Your task to perform on an android device: toggle javascript in the chrome app Image 0: 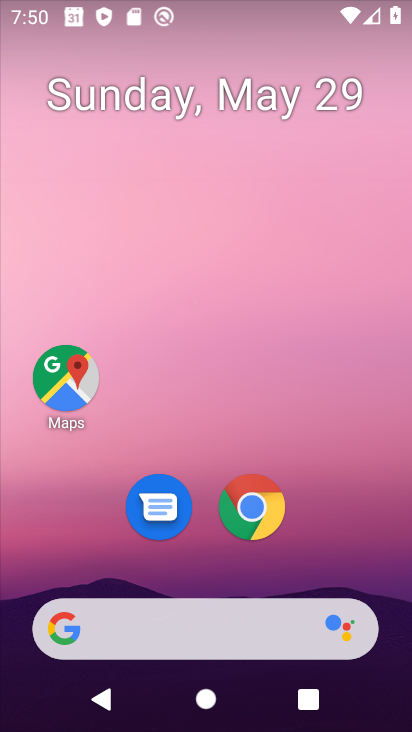
Step 0: click (250, 507)
Your task to perform on an android device: toggle javascript in the chrome app Image 1: 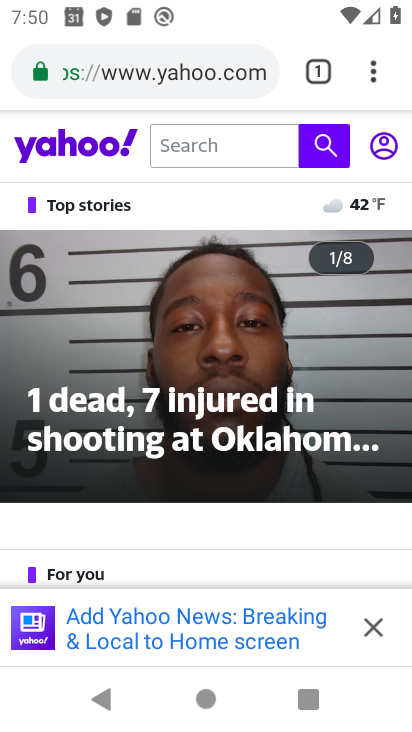
Step 1: drag from (370, 68) to (238, 571)
Your task to perform on an android device: toggle javascript in the chrome app Image 2: 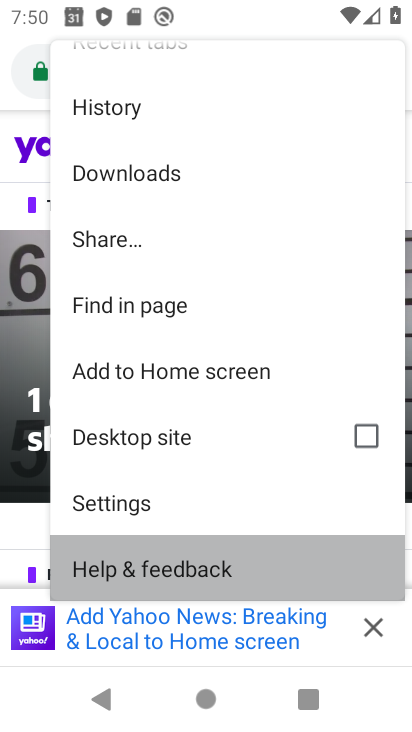
Step 2: click (239, 530)
Your task to perform on an android device: toggle javascript in the chrome app Image 3: 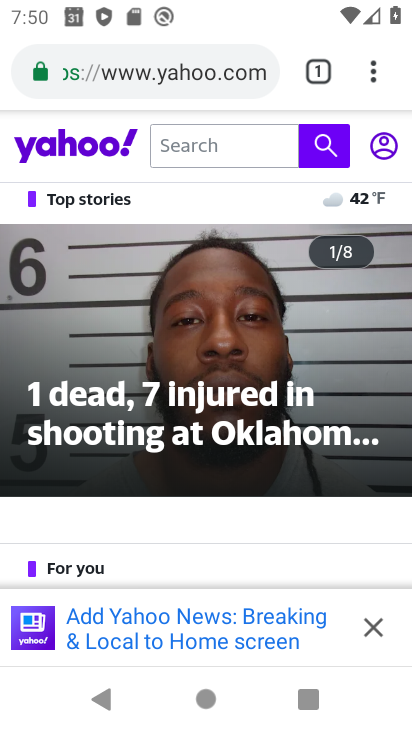
Step 3: drag from (374, 54) to (282, 489)
Your task to perform on an android device: toggle javascript in the chrome app Image 4: 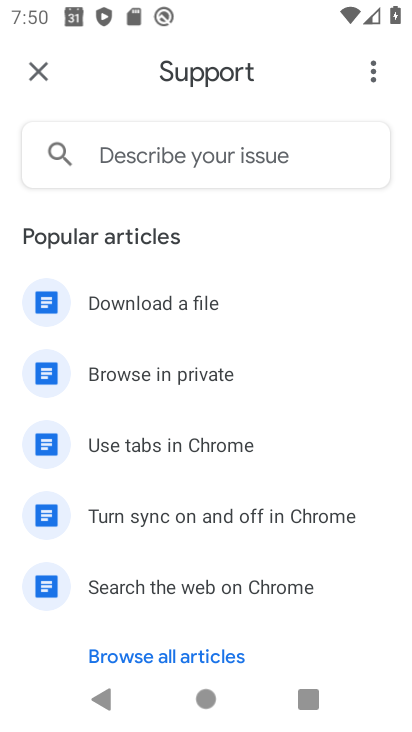
Step 4: click (41, 72)
Your task to perform on an android device: toggle javascript in the chrome app Image 5: 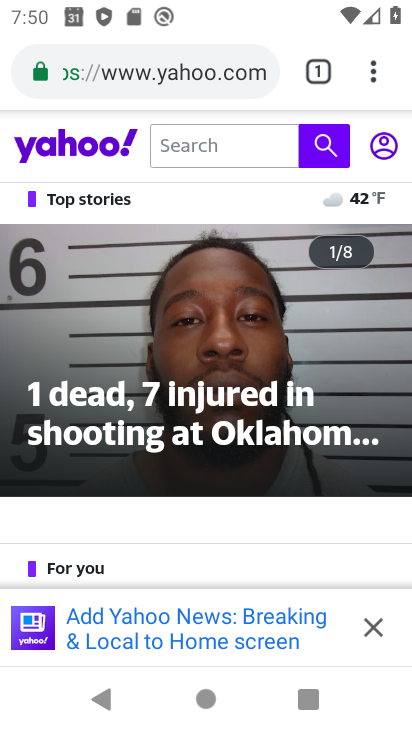
Step 5: drag from (374, 55) to (226, 477)
Your task to perform on an android device: toggle javascript in the chrome app Image 6: 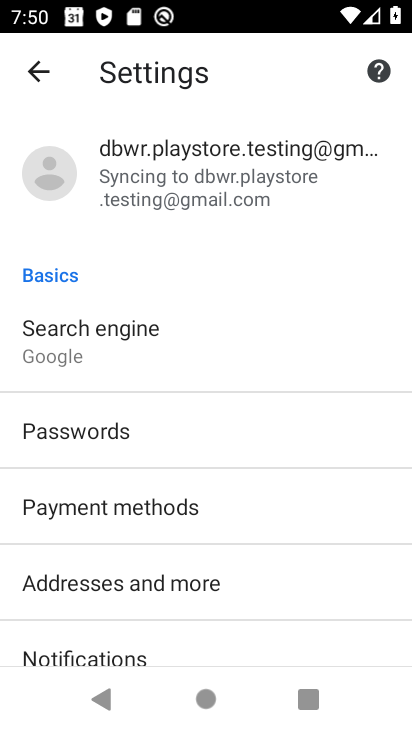
Step 6: drag from (207, 478) to (245, 101)
Your task to perform on an android device: toggle javascript in the chrome app Image 7: 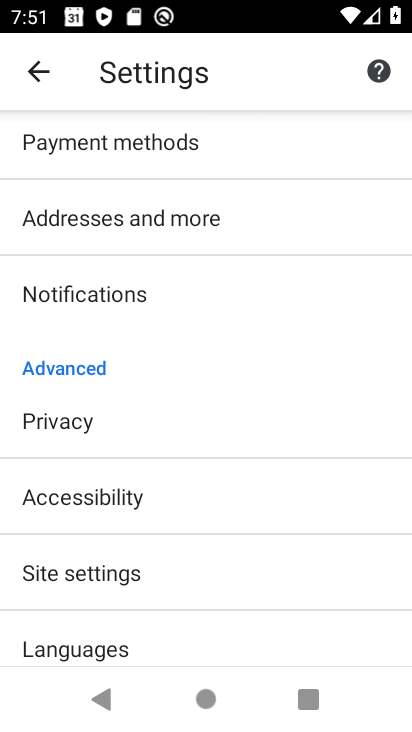
Step 7: drag from (184, 561) to (229, 265)
Your task to perform on an android device: toggle javascript in the chrome app Image 8: 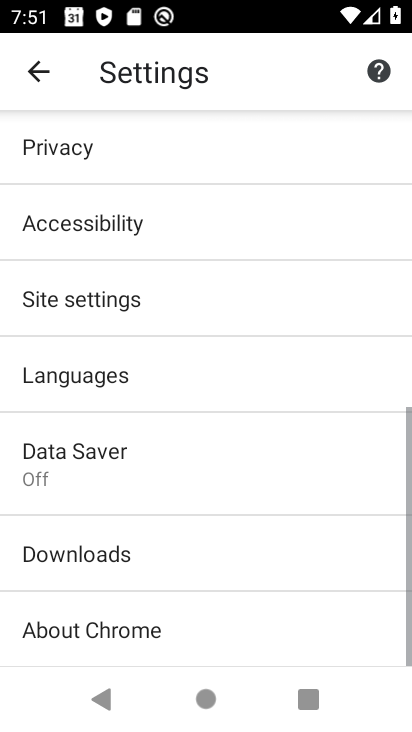
Step 8: click (234, 255)
Your task to perform on an android device: toggle javascript in the chrome app Image 9: 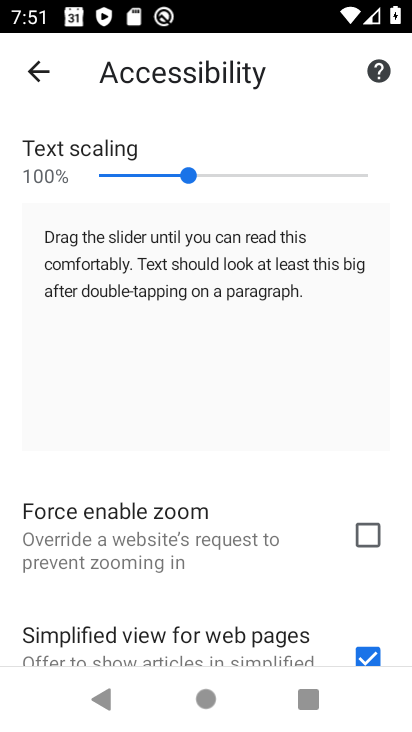
Step 9: click (55, 64)
Your task to perform on an android device: toggle javascript in the chrome app Image 10: 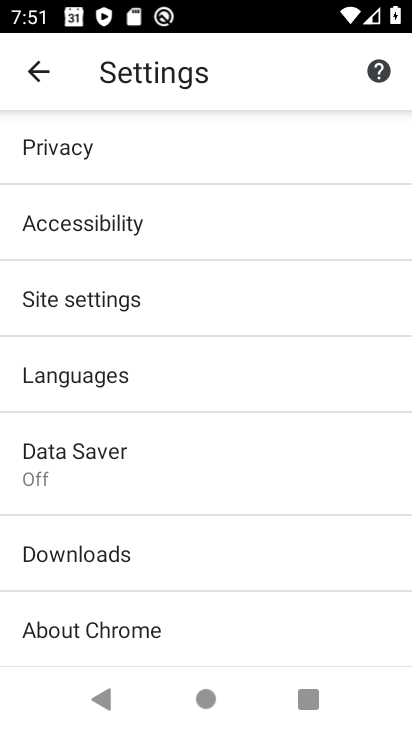
Step 10: click (152, 286)
Your task to perform on an android device: toggle javascript in the chrome app Image 11: 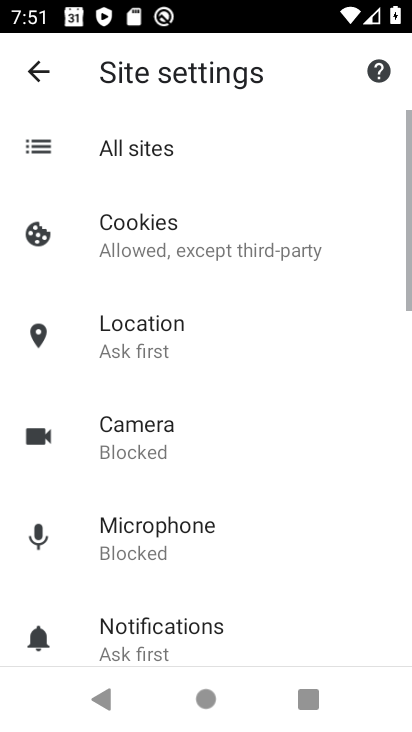
Step 11: drag from (228, 576) to (244, 170)
Your task to perform on an android device: toggle javascript in the chrome app Image 12: 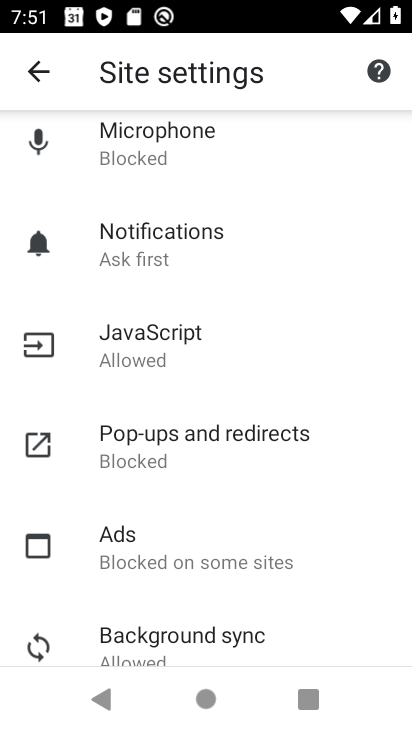
Step 12: click (152, 345)
Your task to perform on an android device: toggle javascript in the chrome app Image 13: 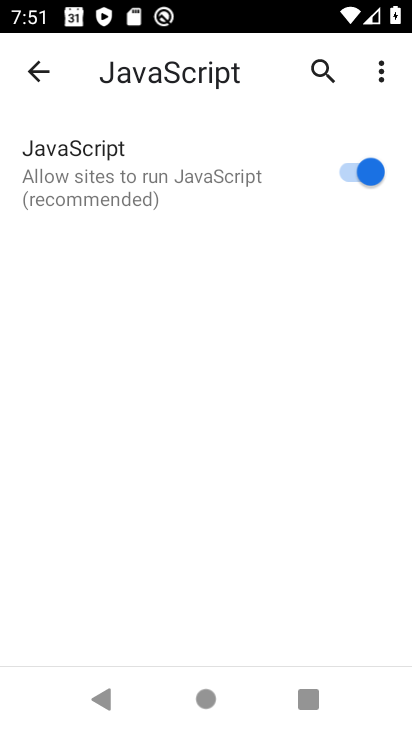
Step 13: click (360, 153)
Your task to perform on an android device: toggle javascript in the chrome app Image 14: 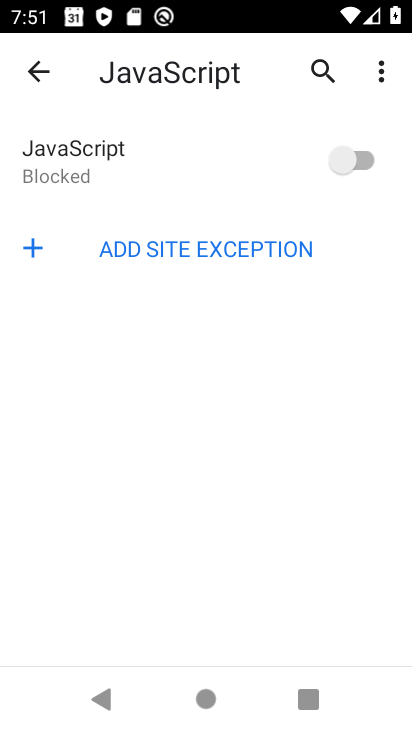
Step 14: task complete